Your task to perform on an android device: Open location settings Image 0: 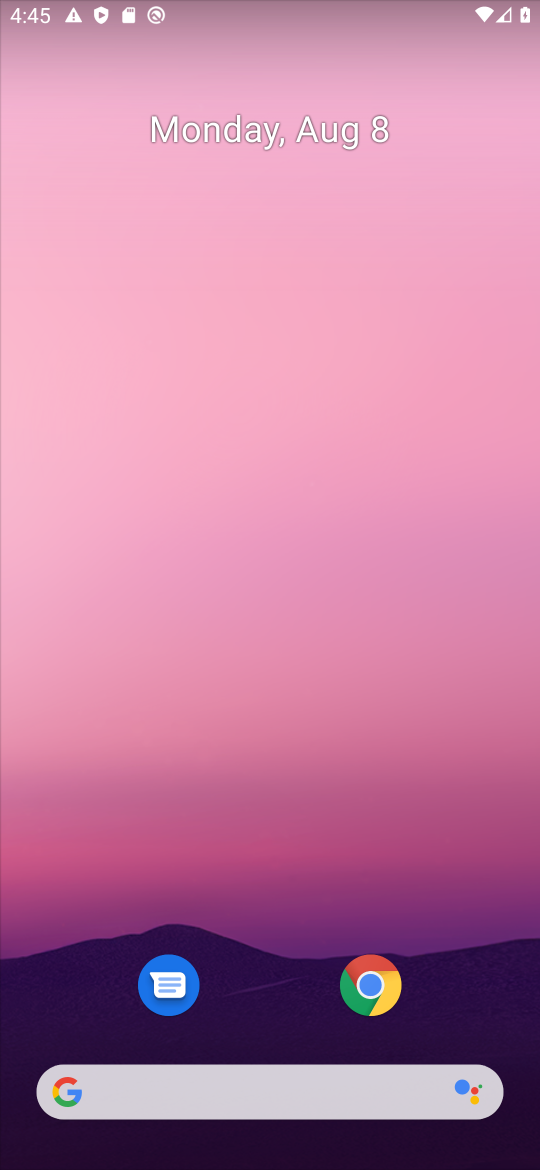
Step 0: drag from (312, 866) to (356, 237)
Your task to perform on an android device: Open location settings Image 1: 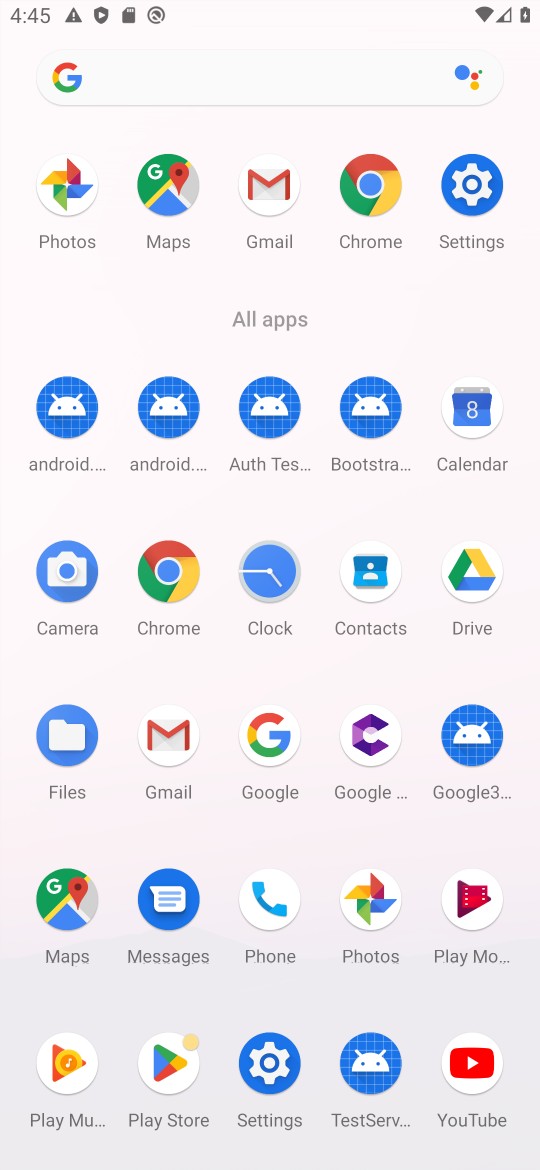
Step 1: click (472, 194)
Your task to perform on an android device: Open location settings Image 2: 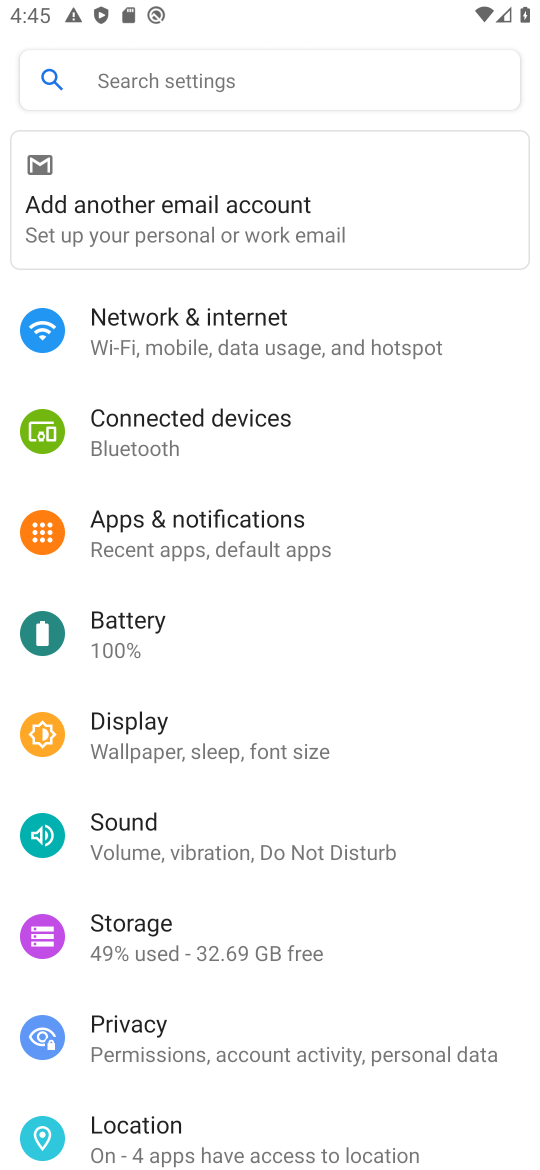
Step 2: task complete